Your task to perform on an android device: open the mobile data screen to see how much data has been used Image 0: 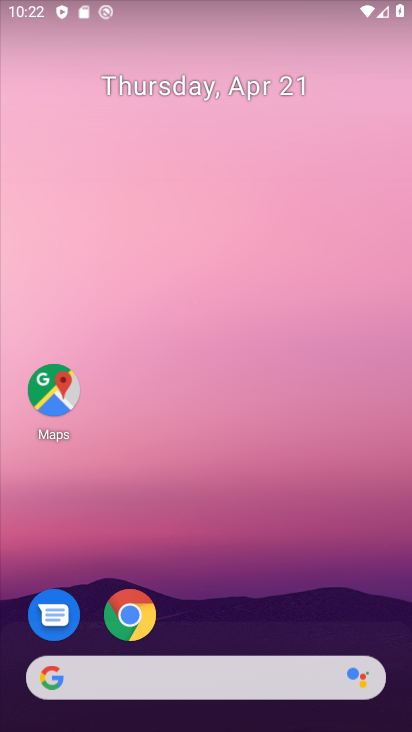
Step 0: drag from (233, 552) to (233, 116)
Your task to perform on an android device: open the mobile data screen to see how much data has been used Image 1: 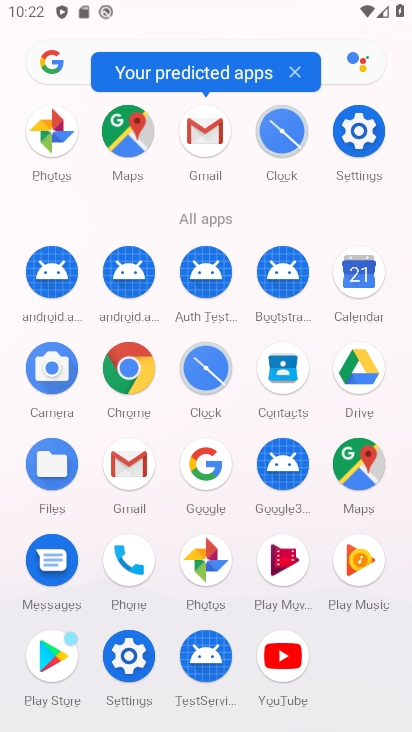
Step 1: click (352, 132)
Your task to perform on an android device: open the mobile data screen to see how much data has been used Image 2: 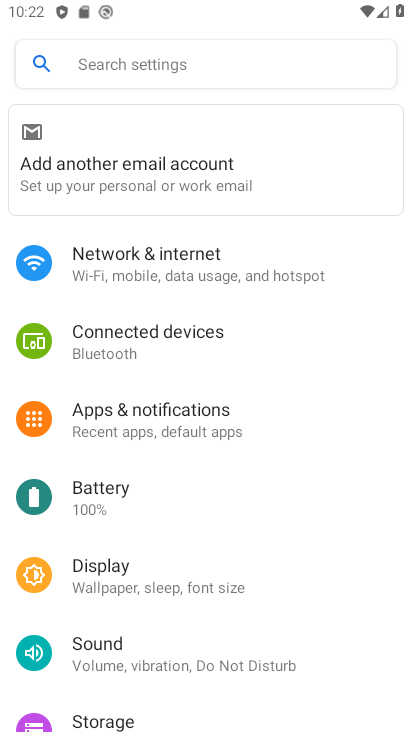
Step 2: click (159, 266)
Your task to perform on an android device: open the mobile data screen to see how much data has been used Image 3: 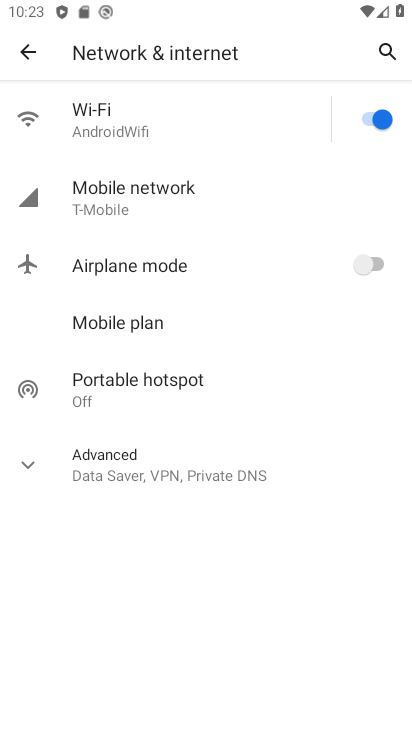
Step 3: click (92, 197)
Your task to perform on an android device: open the mobile data screen to see how much data has been used Image 4: 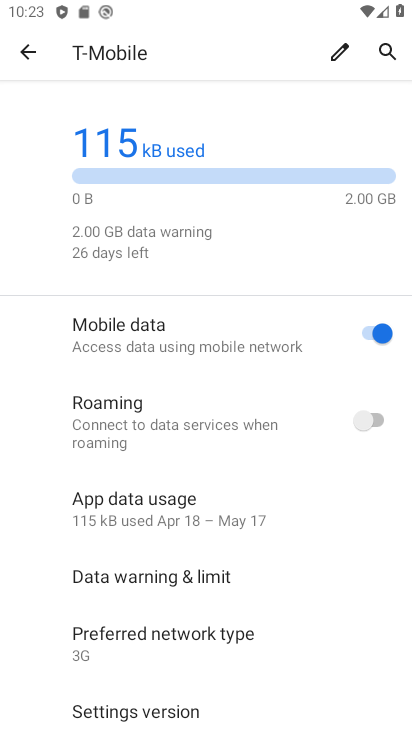
Step 4: click (149, 506)
Your task to perform on an android device: open the mobile data screen to see how much data has been used Image 5: 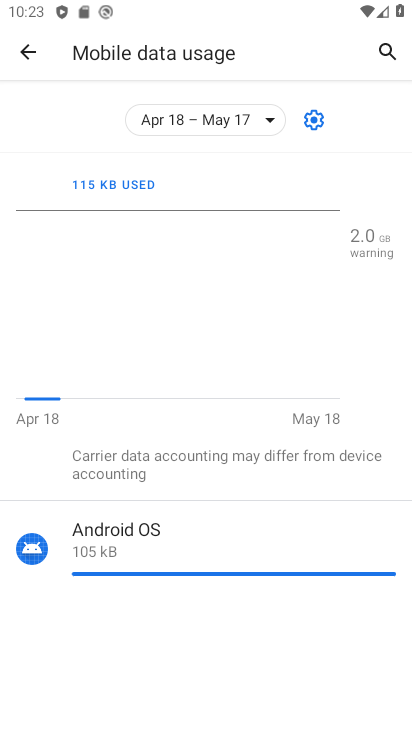
Step 5: task complete